Your task to perform on an android device: turn on sleep mode Image 0: 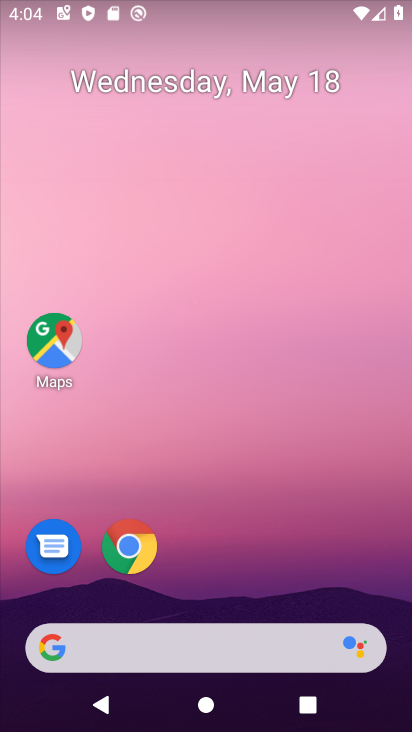
Step 0: drag from (226, 591) to (379, 7)
Your task to perform on an android device: turn on sleep mode Image 1: 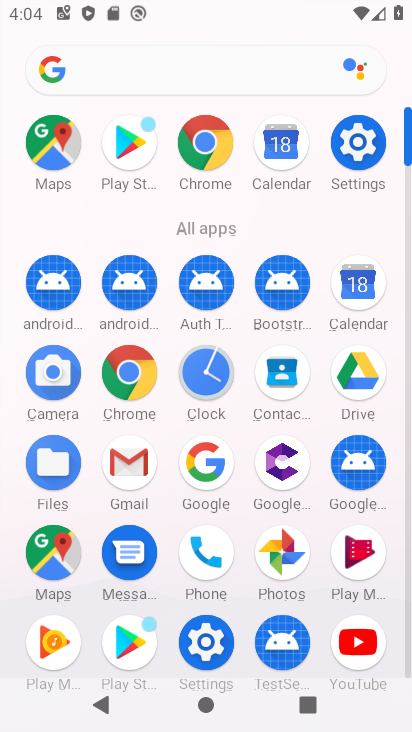
Step 1: click (361, 152)
Your task to perform on an android device: turn on sleep mode Image 2: 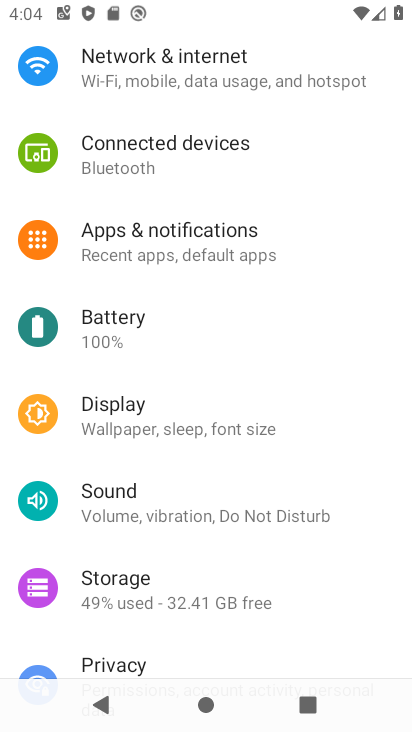
Step 2: drag from (314, 154) to (251, 527)
Your task to perform on an android device: turn on sleep mode Image 3: 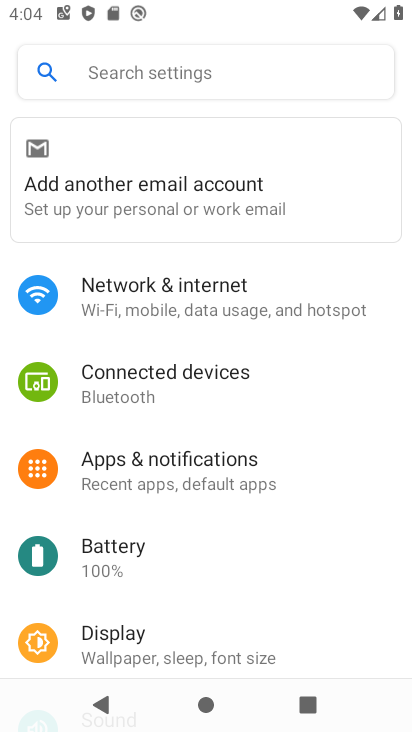
Step 3: click (209, 76)
Your task to perform on an android device: turn on sleep mode Image 4: 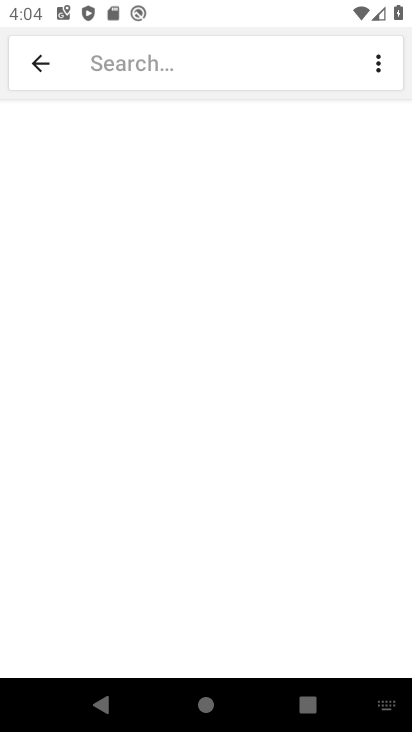
Step 4: type "sleep mode"
Your task to perform on an android device: turn on sleep mode Image 5: 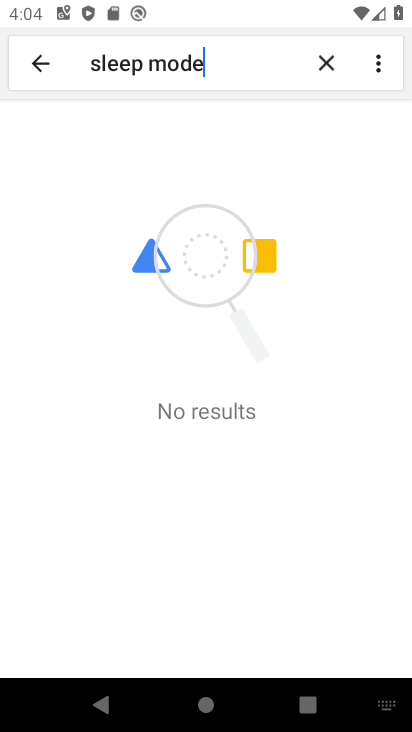
Step 5: click (155, 168)
Your task to perform on an android device: turn on sleep mode Image 6: 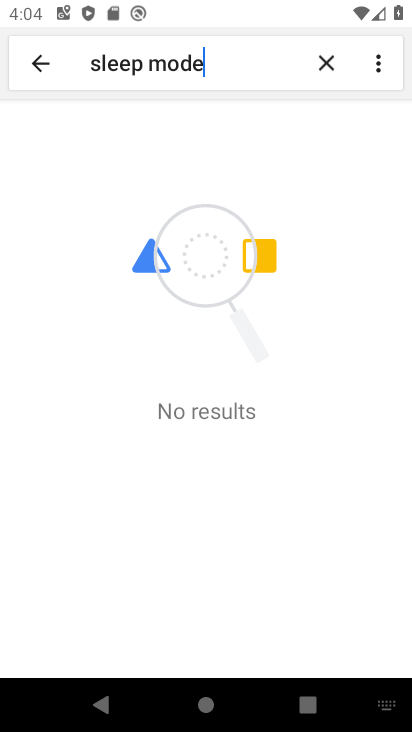
Step 6: task complete